Your task to perform on an android device: Set the phone to "Do not disturb". Image 0: 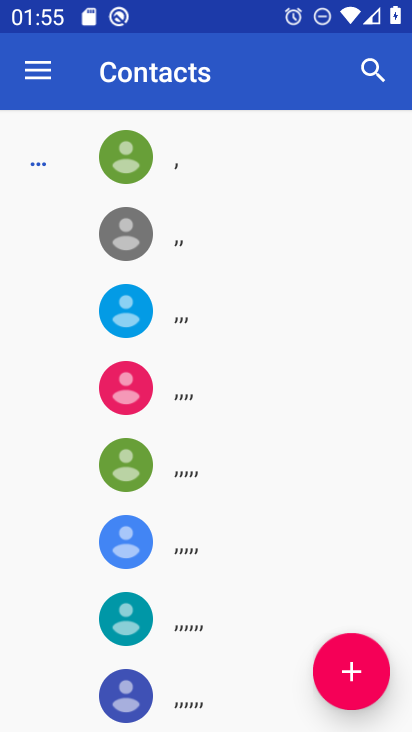
Step 0: press home button
Your task to perform on an android device: Set the phone to "Do not disturb". Image 1: 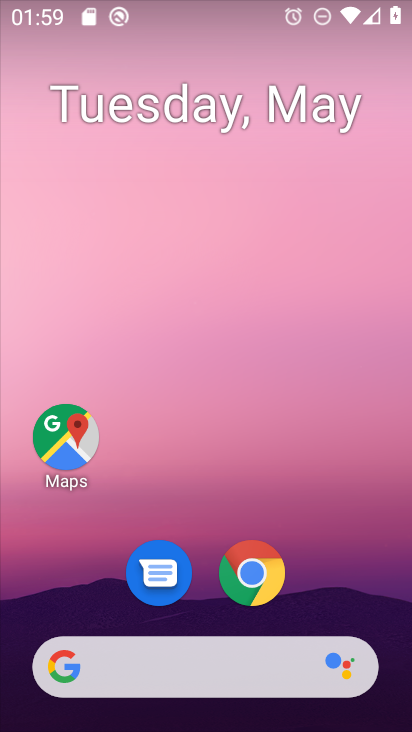
Step 1: drag from (185, 713) to (254, 0)
Your task to perform on an android device: Set the phone to "Do not disturb". Image 2: 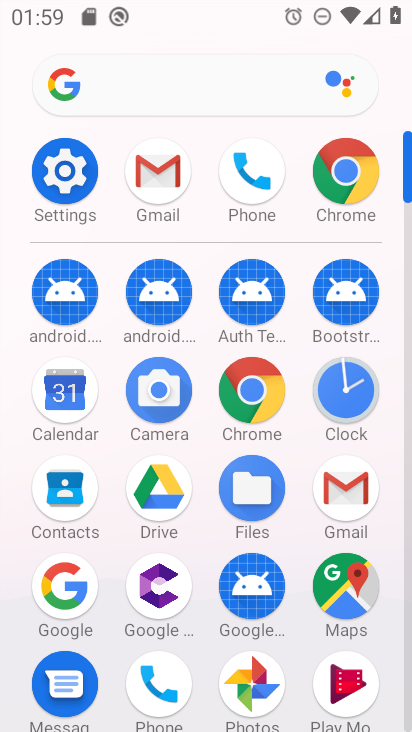
Step 2: click (49, 159)
Your task to perform on an android device: Set the phone to "Do not disturb". Image 3: 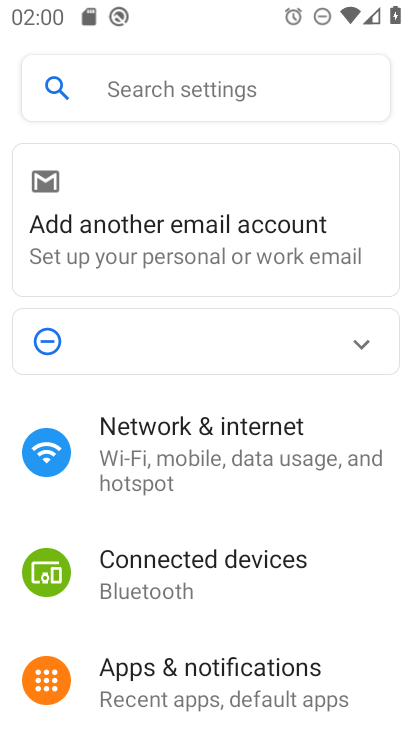
Step 3: drag from (282, 679) to (274, 52)
Your task to perform on an android device: Set the phone to "Do not disturb". Image 4: 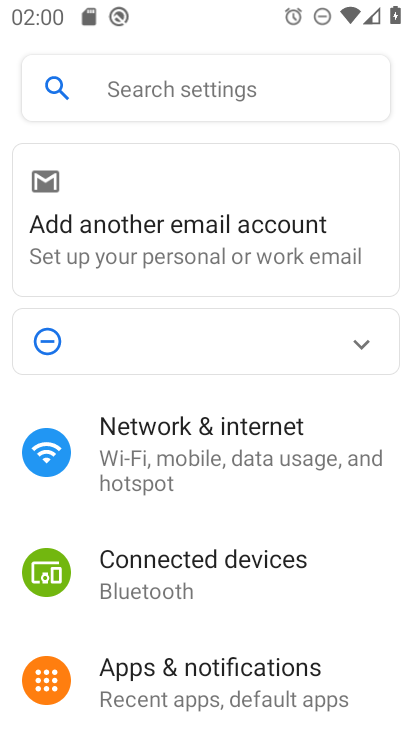
Step 4: drag from (227, 660) to (233, 37)
Your task to perform on an android device: Set the phone to "Do not disturb". Image 5: 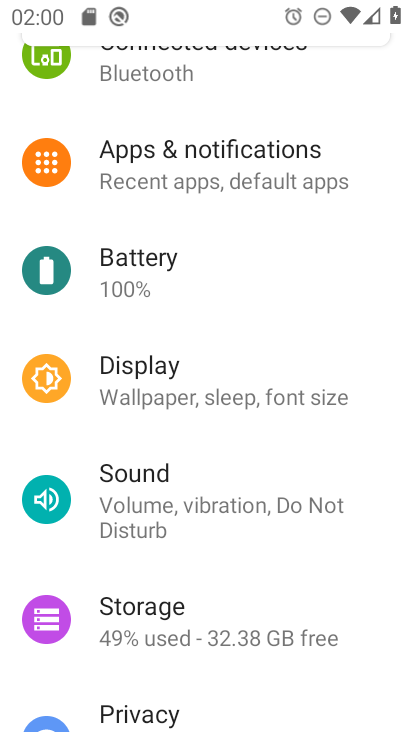
Step 5: click (256, 498)
Your task to perform on an android device: Set the phone to "Do not disturb". Image 6: 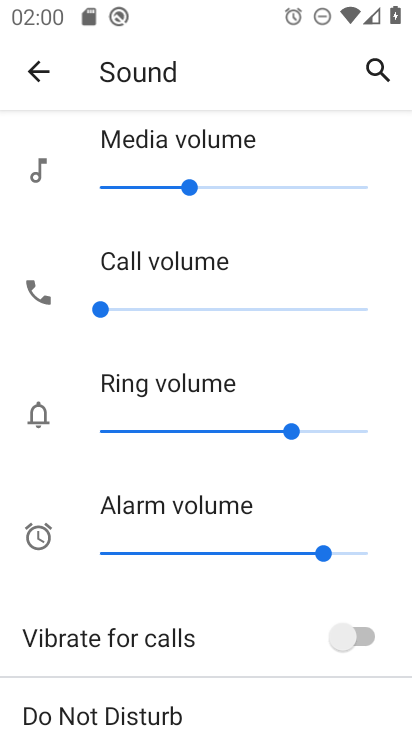
Step 6: click (172, 712)
Your task to perform on an android device: Set the phone to "Do not disturb". Image 7: 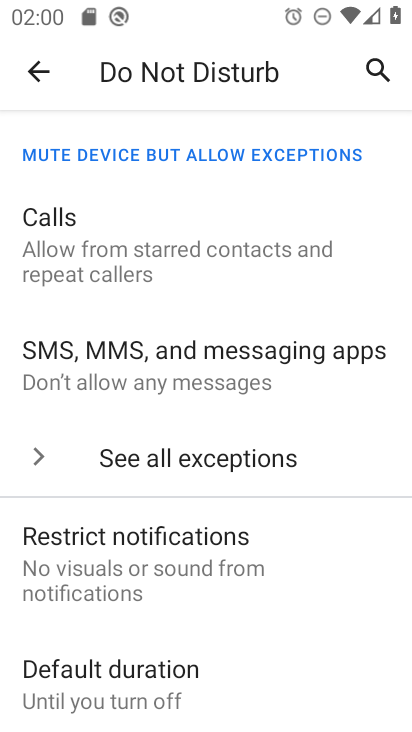
Step 7: task complete